Your task to perform on an android device: turn off location history Image 0: 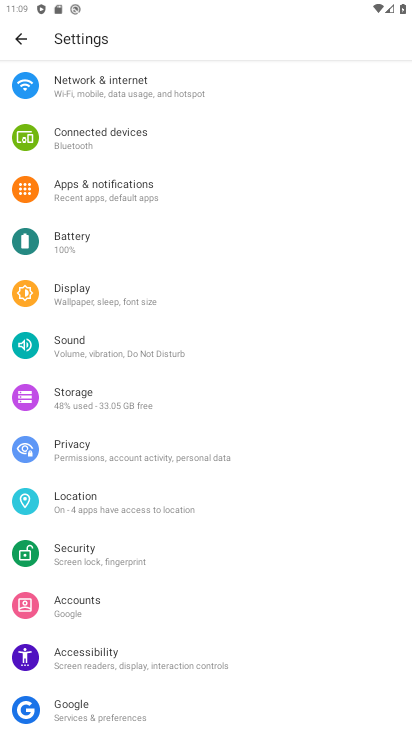
Step 0: click (111, 501)
Your task to perform on an android device: turn off location history Image 1: 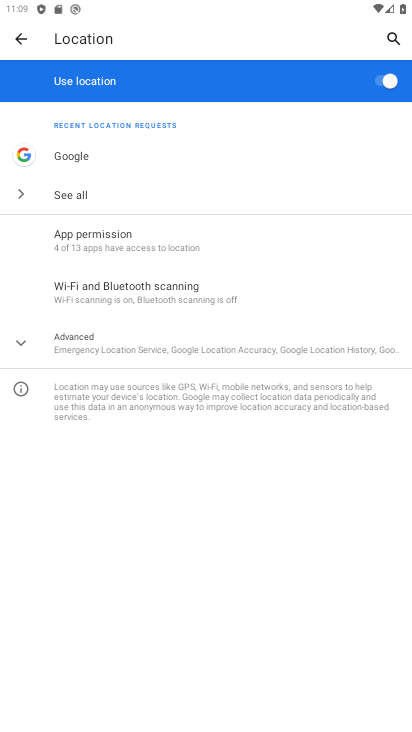
Step 1: click (394, 84)
Your task to perform on an android device: turn off location history Image 2: 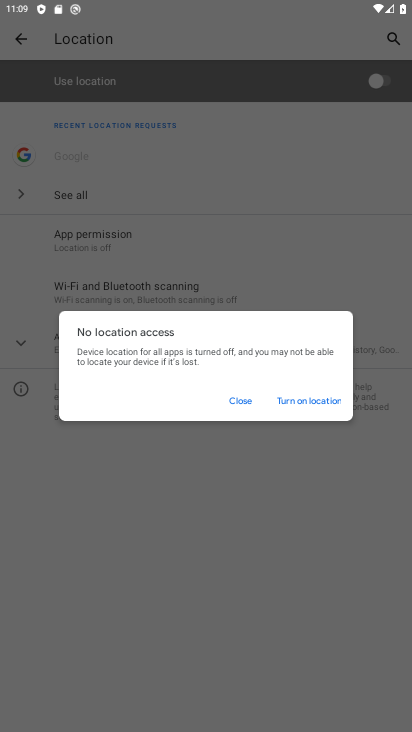
Step 2: task complete